Your task to perform on an android device: Search for pizza restaurants on Maps Image 0: 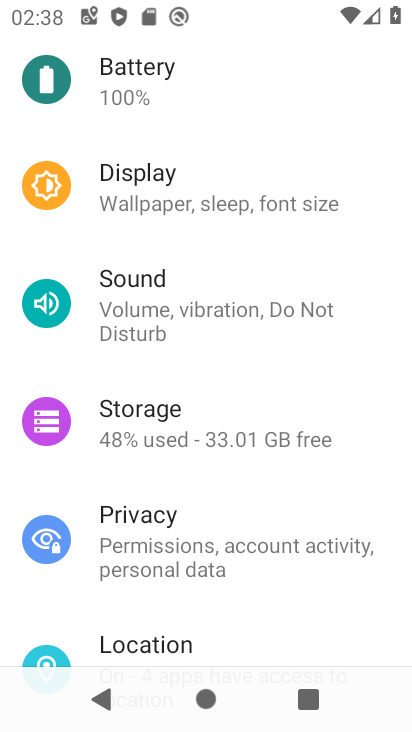
Step 0: press home button
Your task to perform on an android device: Search for pizza restaurants on Maps Image 1: 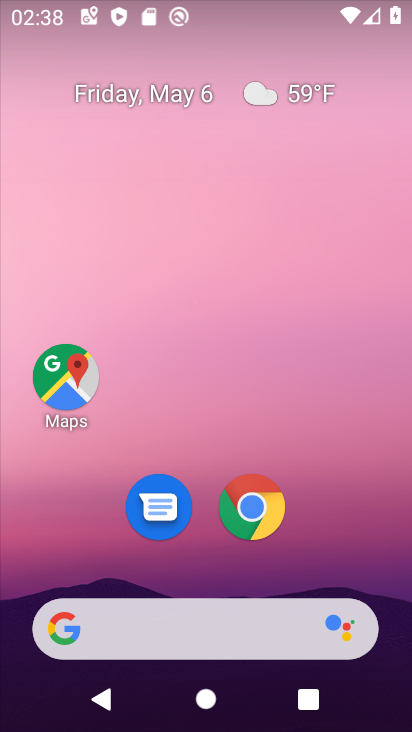
Step 1: click (71, 393)
Your task to perform on an android device: Search for pizza restaurants on Maps Image 2: 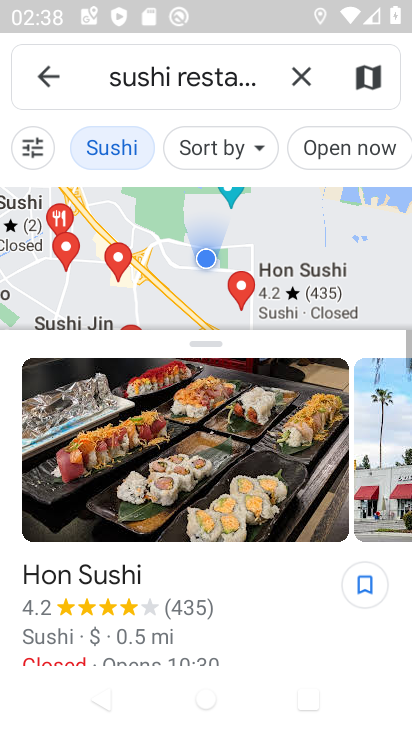
Step 2: click (300, 83)
Your task to perform on an android device: Search for pizza restaurants on Maps Image 3: 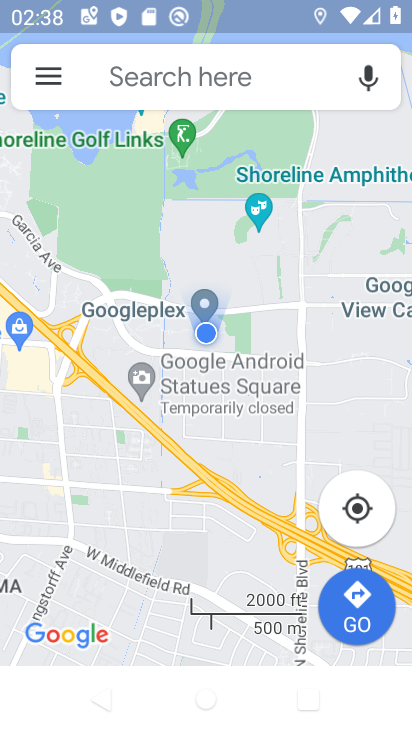
Step 3: click (230, 80)
Your task to perform on an android device: Search for pizza restaurants on Maps Image 4: 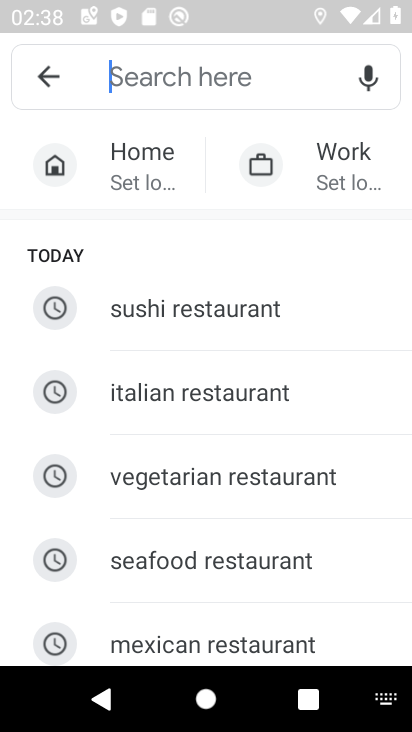
Step 4: drag from (238, 567) to (238, 365)
Your task to perform on an android device: Search for pizza restaurants on Maps Image 5: 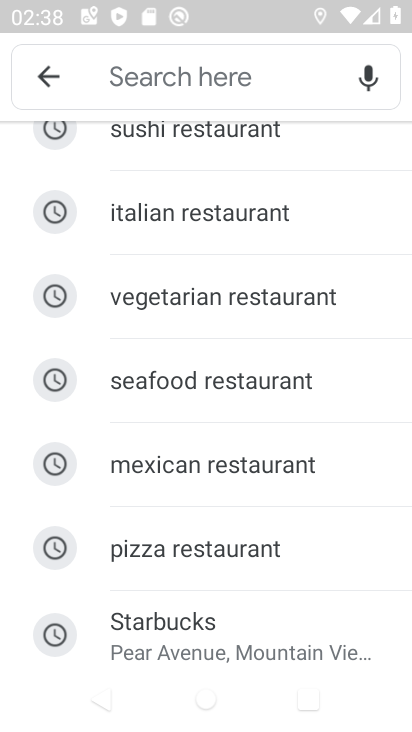
Step 5: click (227, 549)
Your task to perform on an android device: Search for pizza restaurants on Maps Image 6: 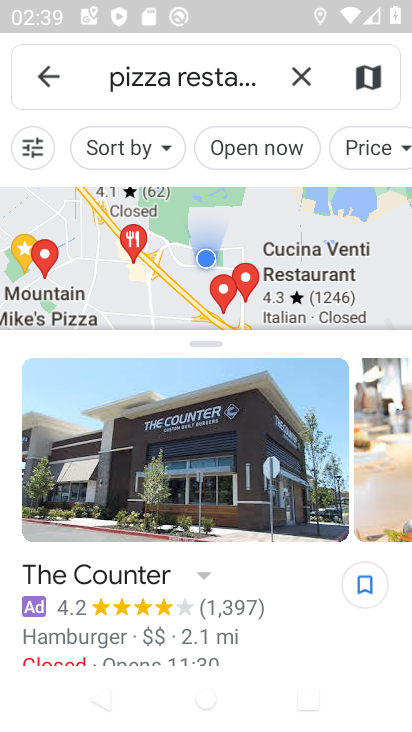
Step 6: task complete